Your task to perform on an android device: change the clock display to digital Image 0: 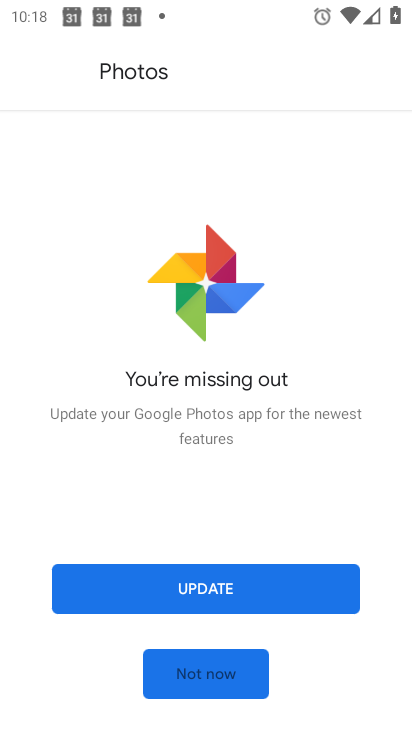
Step 0: press home button
Your task to perform on an android device: change the clock display to digital Image 1: 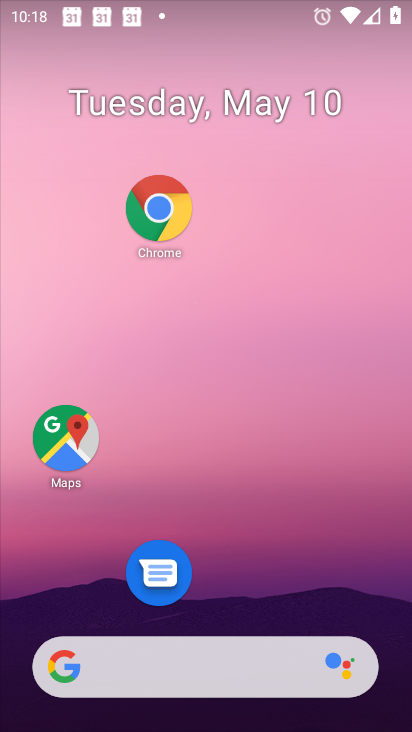
Step 1: drag from (282, 693) to (284, 351)
Your task to perform on an android device: change the clock display to digital Image 2: 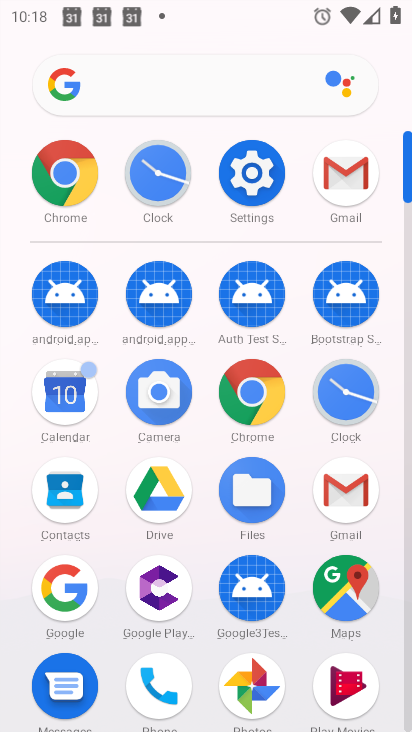
Step 2: click (325, 396)
Your task to perform on an android device: change the clock display to digital Image 3: 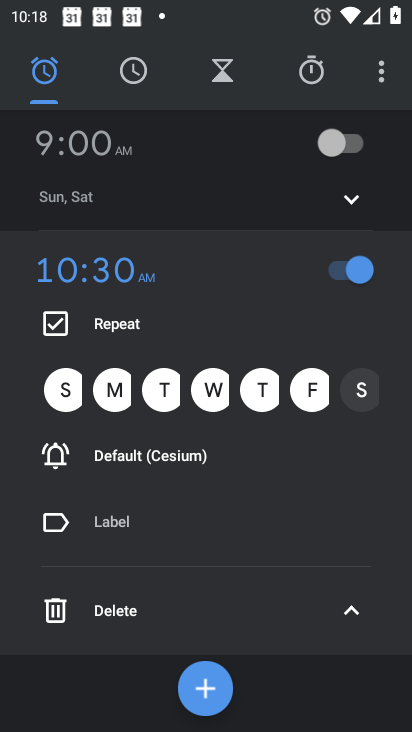
Step 3: click (385, 77)
Your task to perform on an android device: change the clock display to digital Image 4: 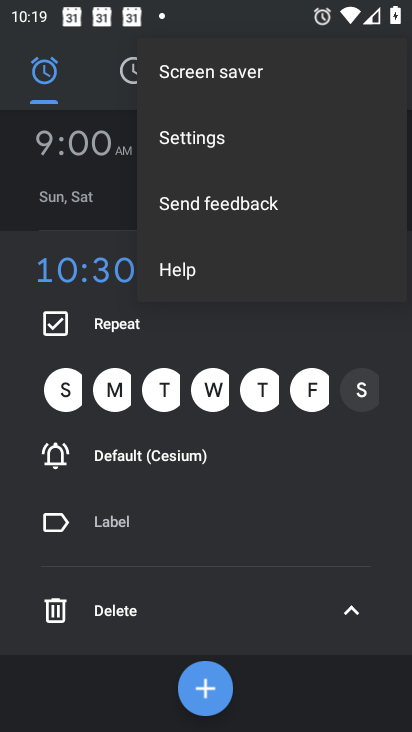
Step 4: click (227, 142)
Your task to perform on an android device: change the clock display to digital Image 5: 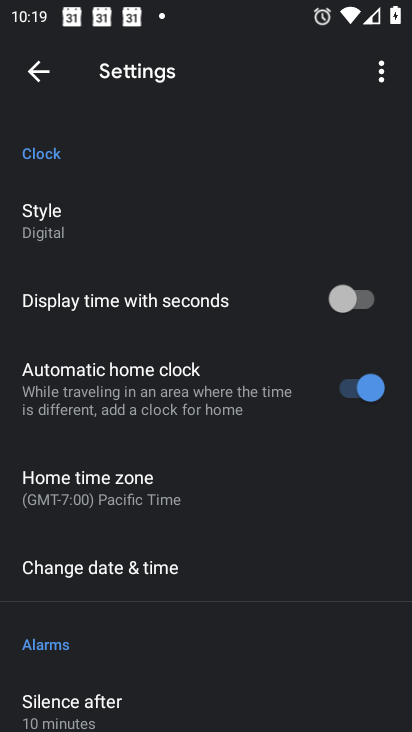
Step 5: click (98, 225)
Your task to perform on an android device: change the clock display to digital Image 6: 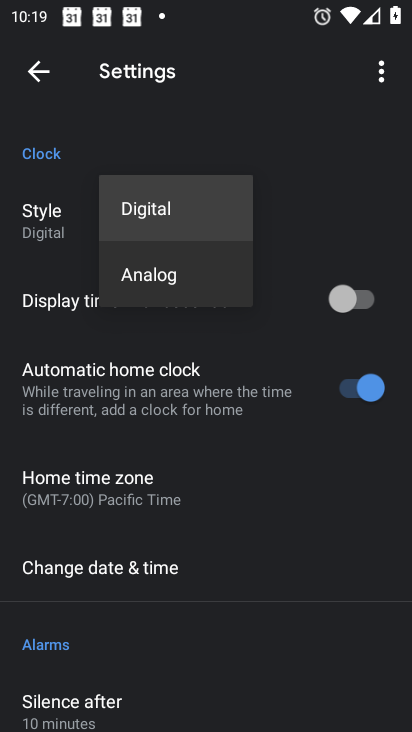
Step 6: click (126, 210)
Your task to perform on an android device: change the clock display to digital Image 7: 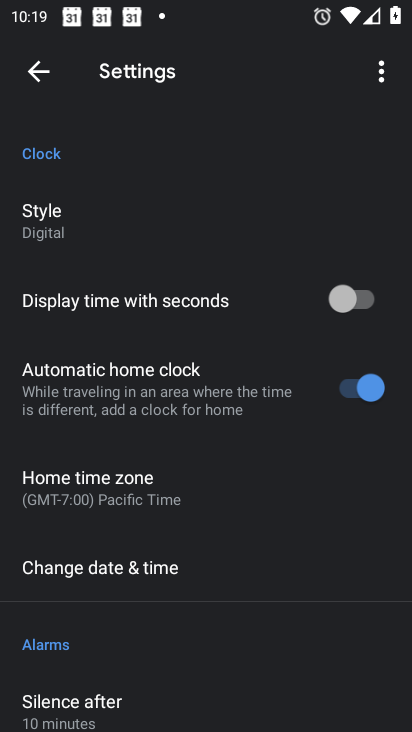
Step 7: task complete